Your task to perform on an android device: open a new tab in the chrome app Image 0: 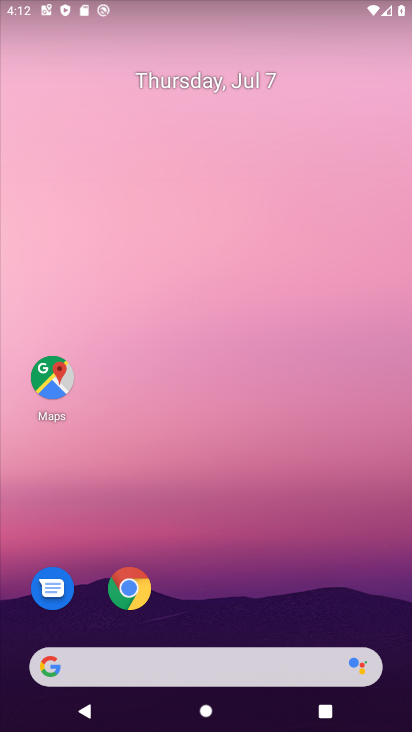
Step 0: click (137, 597)
Your task to perform on an android device: open a new tab in the chrome app Image 1: 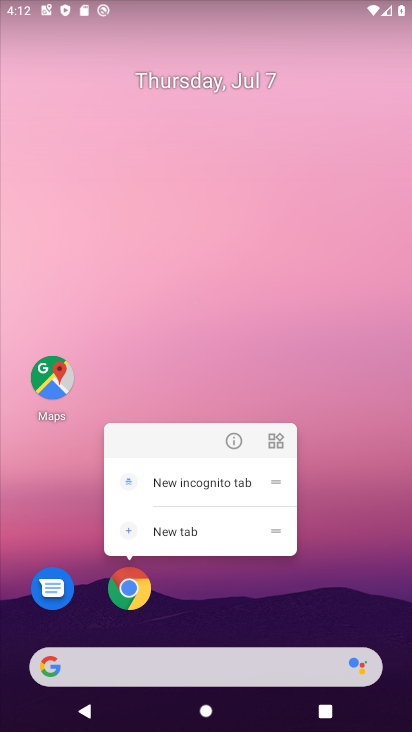
Step 1: click (241, 608)
Your task to perform on an android device: open a new tab in the chrome app Image 2: 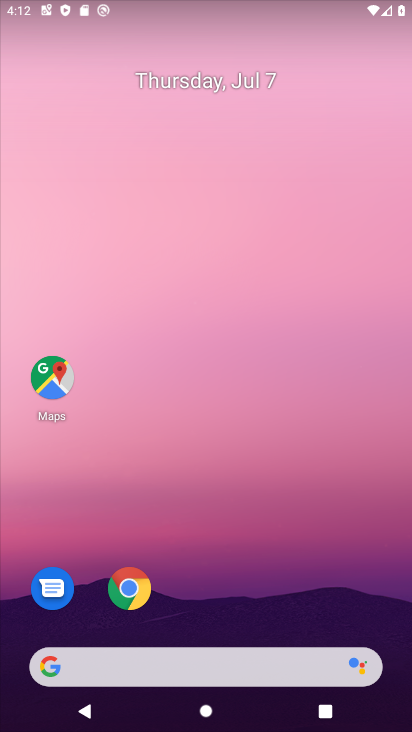
Step 2: drag from (259, 565) to (281, 83)
Your task to perform on an android device: open a new tab in the chrome app Image 3: 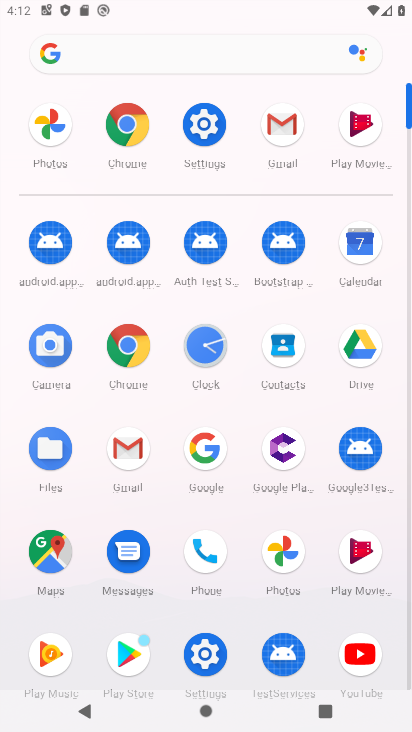
Step 3: click (133, 118)
Your task to perform on an android device: open a new tab in the chrome app Image 4: 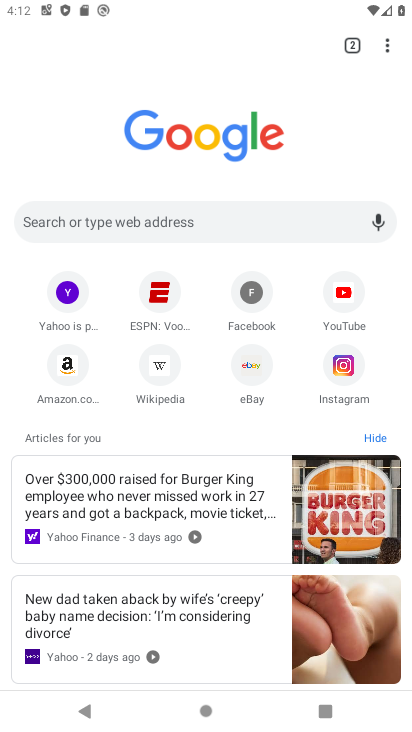
Step 4: click (354, 47)
Your task to perform on an android device: open a new tab in the chrome app Image 5: 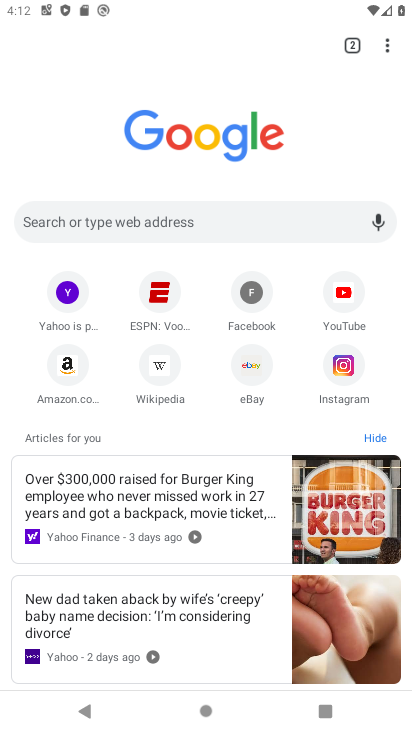
Step 5: click (355, 54)
Your task to perform on an android device: open a new tab in the chrome app Image 6: 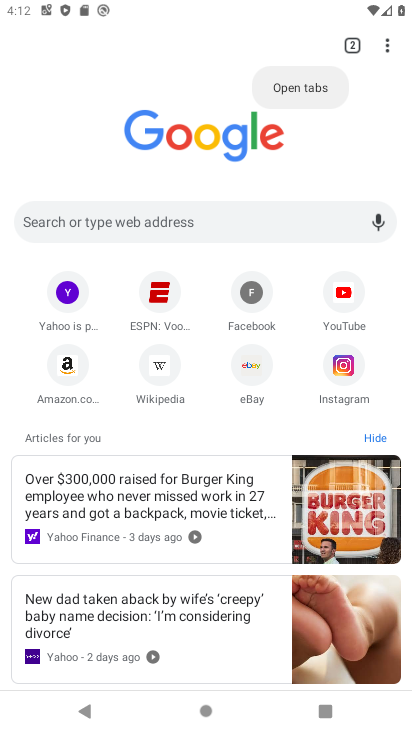
Step 6: click (343, 50)
Your task to perform on an android device: open a new tab in the chrome app Image 7: 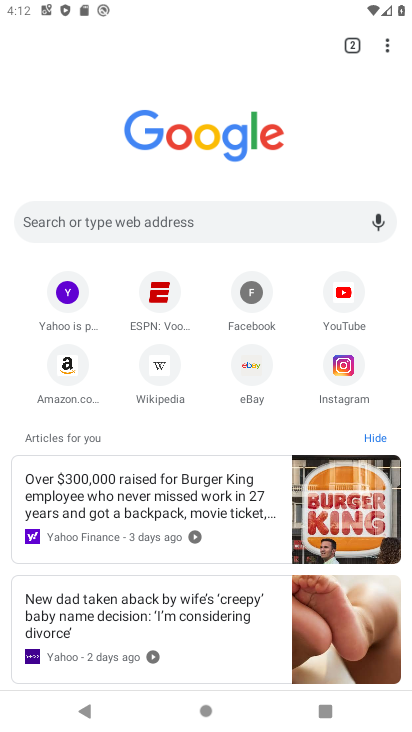
Step 7: click (356, 45)
Your task to perform on an android device: open a new tab in the chrome app Image 8: 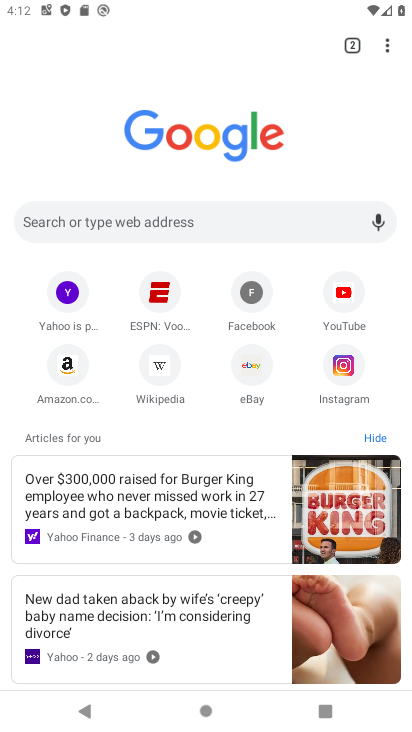
Step 8: click (302, 85)
Your task to perform on an android device: open a new tab in the chrome app Image 9: 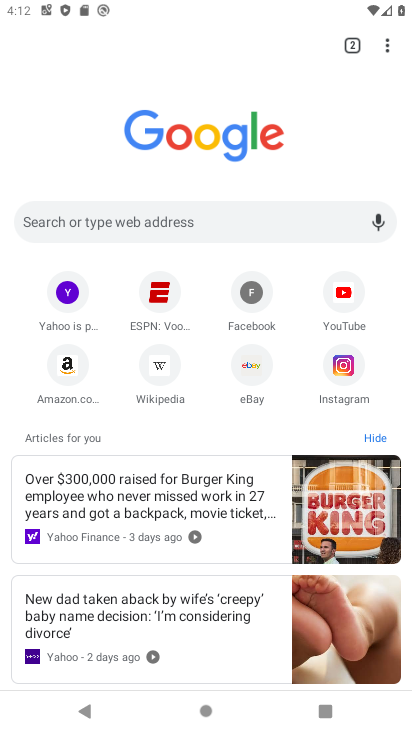
Step 9: click (350, 43)
Your task to perform on an android device: open a new tab in the chrome app Image 10: 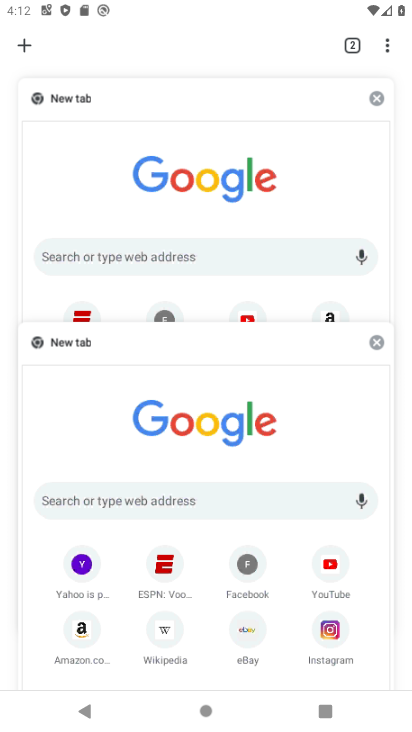
Step 10: click (26, 45)
Your task to perform on an android device: open a new tab in the chrome app Image 11: 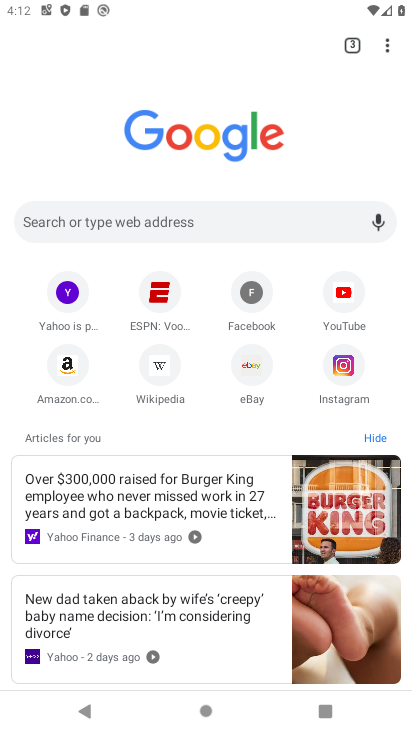
Step 11: task complete